Your task to perform on an android device: Open internet settings Image 0: 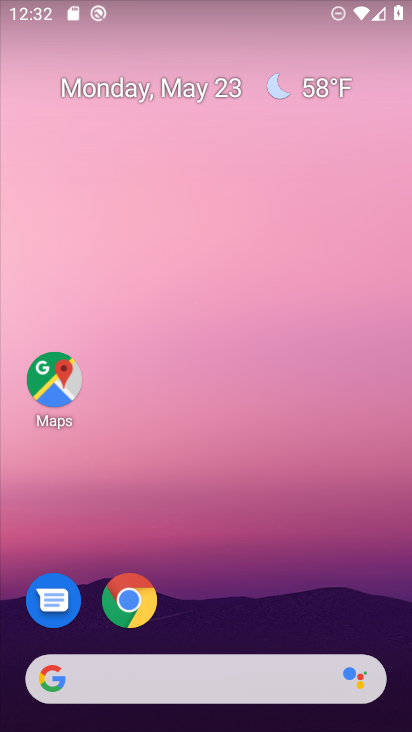
Step 0: drag from (257, 626) to (265, 77)
Your task to perform on an android device: Open internet settings Image 1: 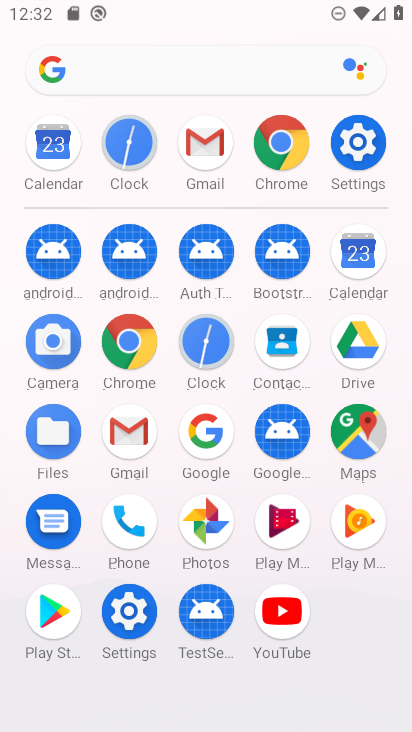
Step 1: click (355, 147)
Your task to perform on an android device: Open internet settings Image 2: 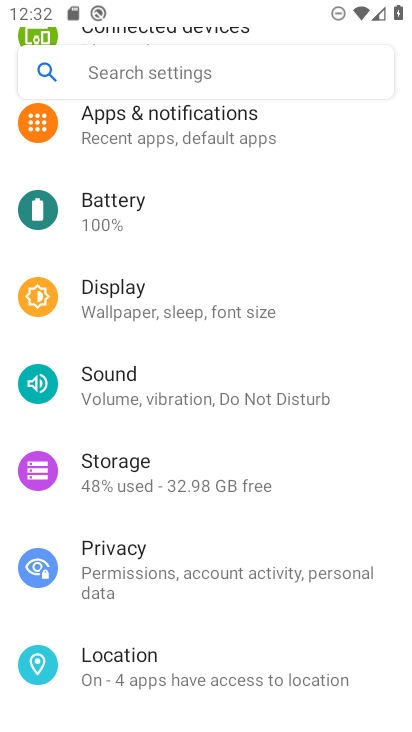
Step 2: drag from (263, 199) to (267, 578)
Your task to perform on an android device: Open internet settings Image 3: 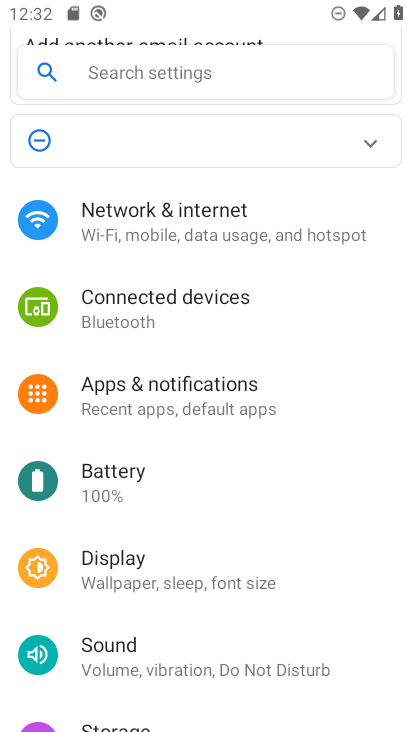
Step 3: click (208, 224)
Your task to perform on an android device: Open internet settings Image 4: 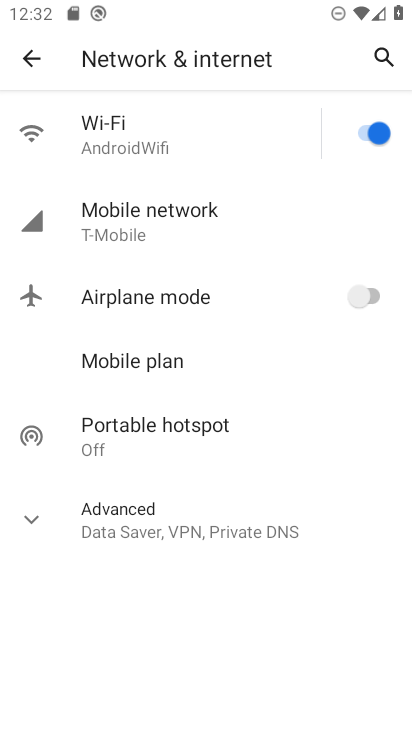
Step 4: task complete